Your task to perform on an android device: Open calendar and show me the first week of next month Image 0: 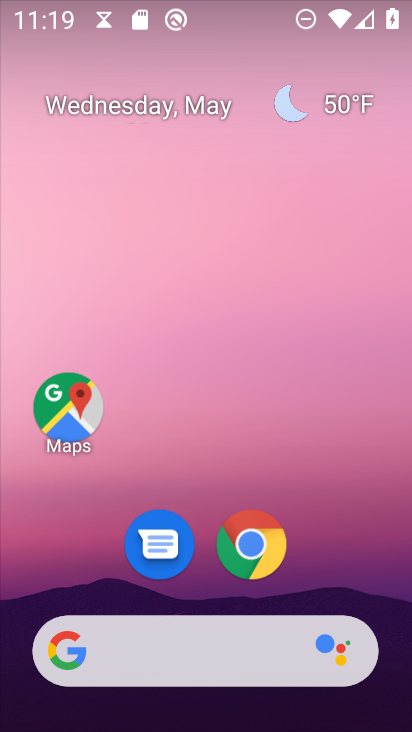
Step 0: click (160, 94)
Your task to perform on an android device: Open calendar and show me the first week of next month Image 1: 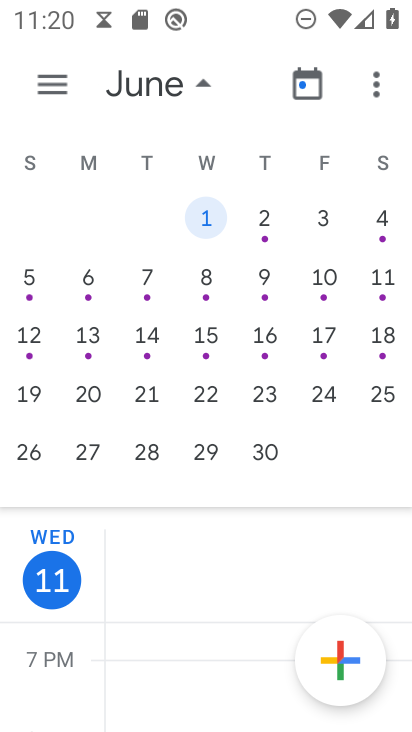
Step 1: click (319, 214)
Your task to perform on an android device: Open calendar and show me the first week of next month Image 2: 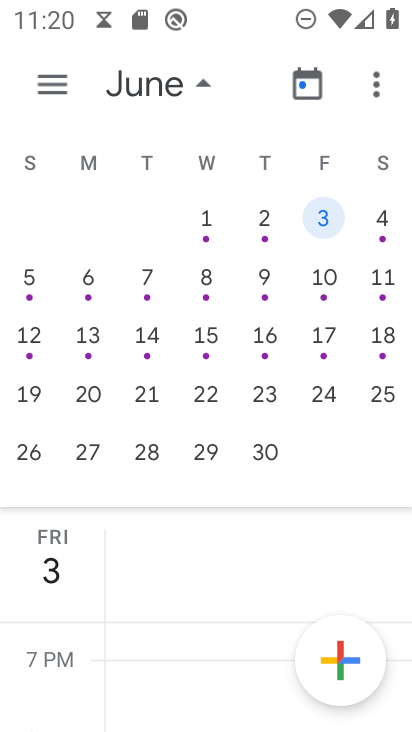
Step 2: task complete